Your task to perform on an android device: Go to Google Image 0: 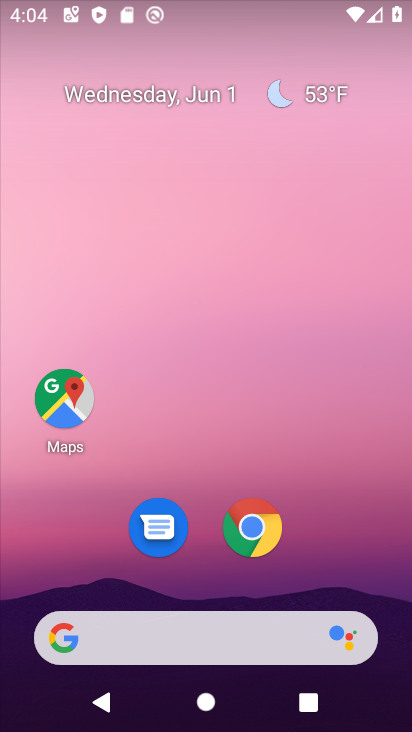
Step 0: click (250, 527)
Your task to perform on an android device: Go to Google Image 1: 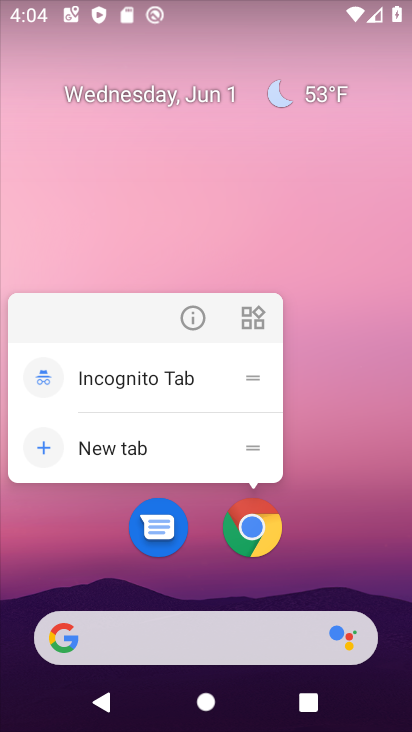
Step 1: click (325, 499)
Your task to perform on an android device: Go to Google Image 2: 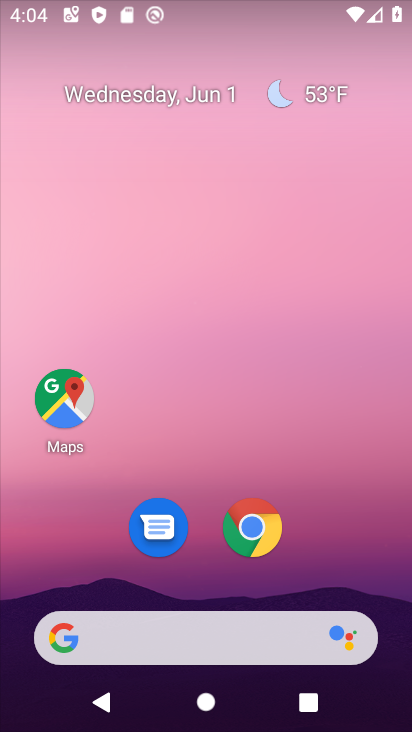
Step 2: drag from (309, 563) to (337, 81)
Your task to perform on an android device: Go to Google Image 3: 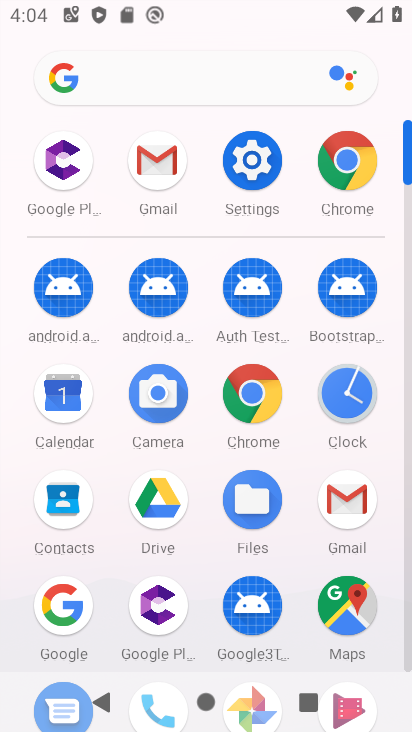
Step 3: click (71, 602)
Your task to perform on an android device: Go to Google Image 4: 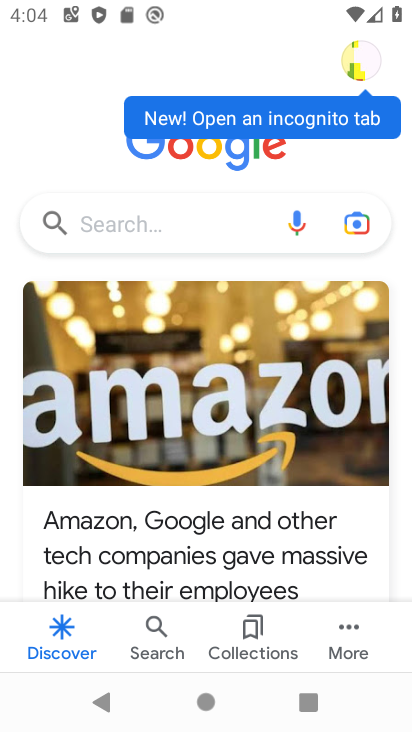
Step 4: task complete